Your task to perform on an android device: open app "AliExpress" (install if not already installed) Image 0: 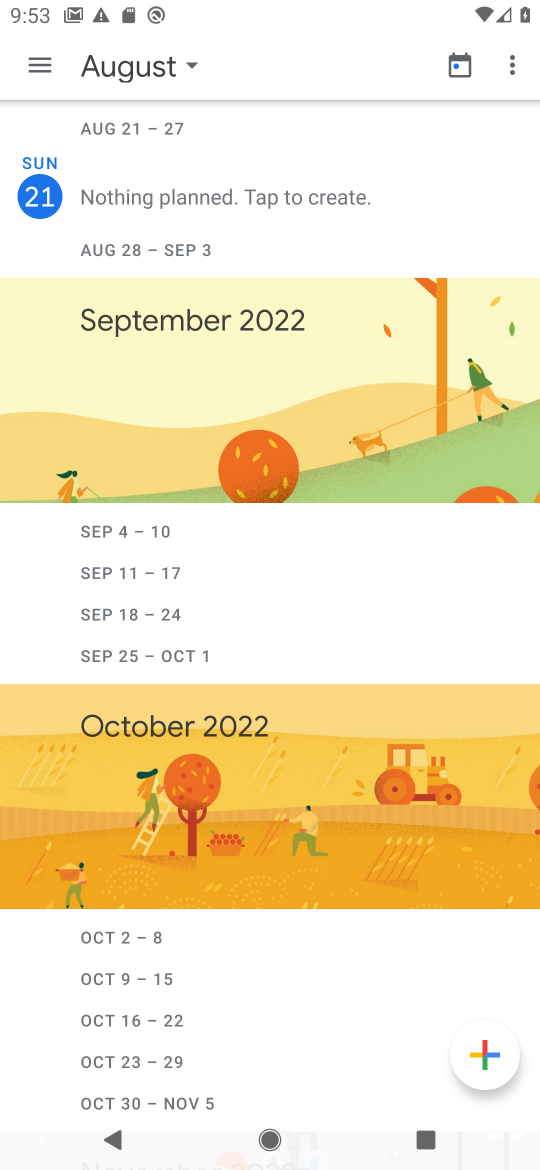
Step 0: press back button
Your task to perform on an android device: open app "AliExpress" (install if not already installed) Image 1: 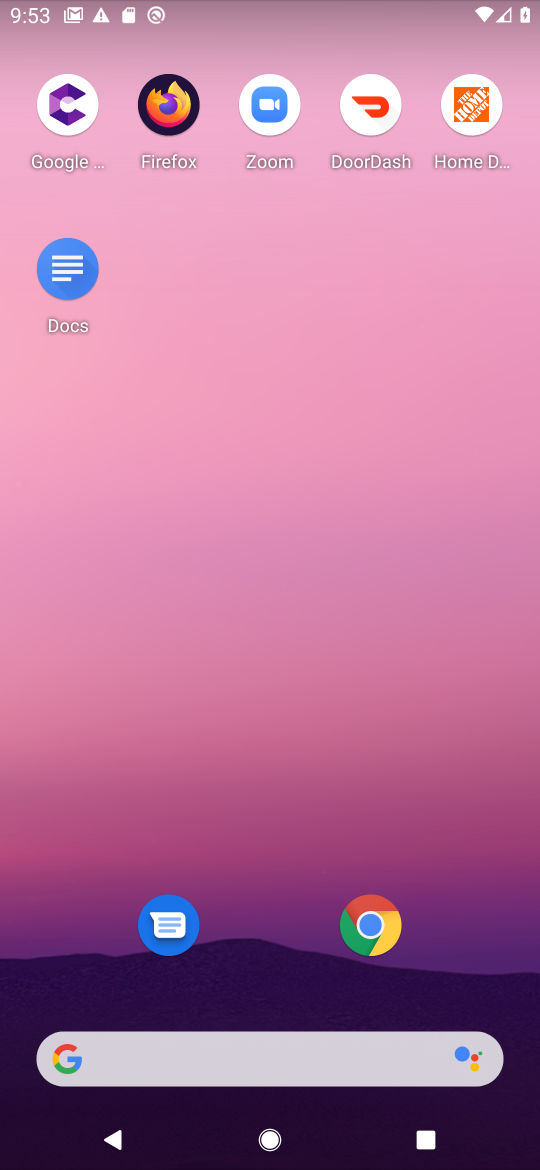
Step 1: drag from (308, 893) to (386, 209)
Your task to perform on an android device: open app "AliExpress" (install if not already installed) Image 2: 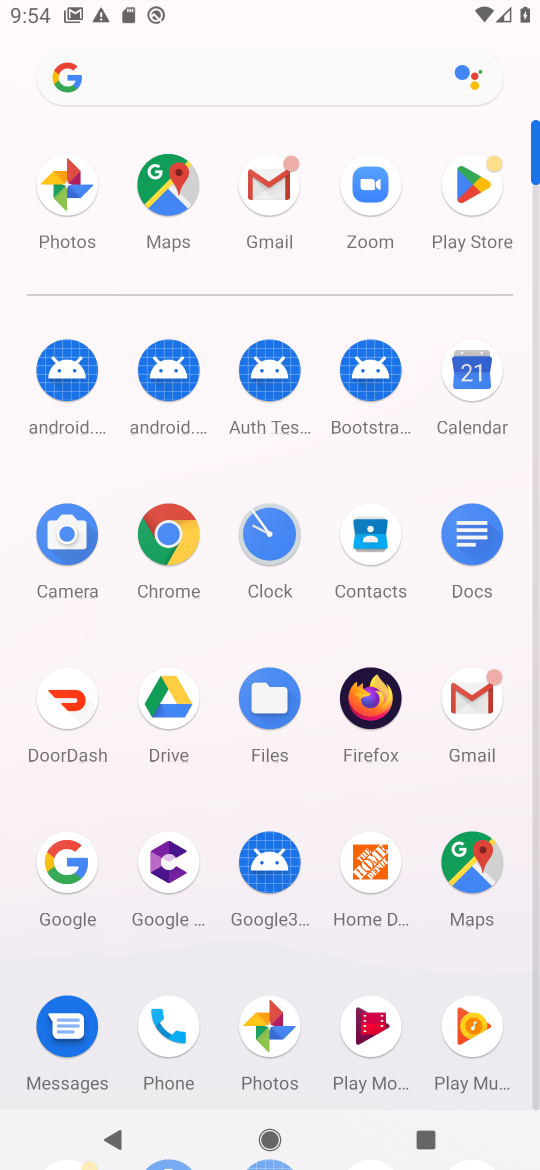
Step 2: click (465, 194)
Your task to perform on an android device: open app "AliExpress" (install if not already installed) Image 3: 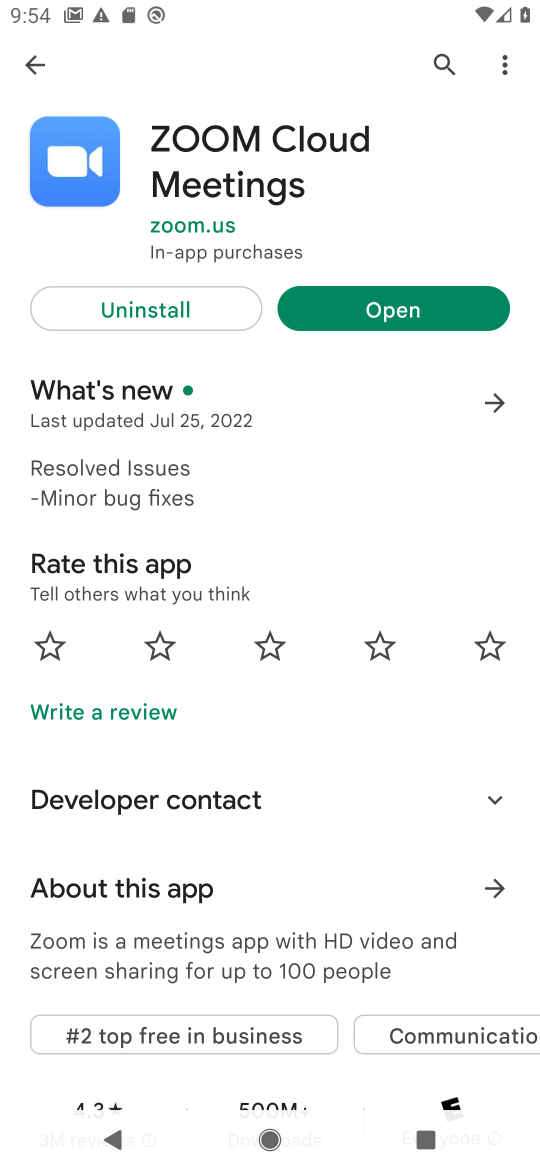
Step 3: click (446, 63)
Your task to perform on an android device: open app "AliExpress" (install if not already installed) Image 4: 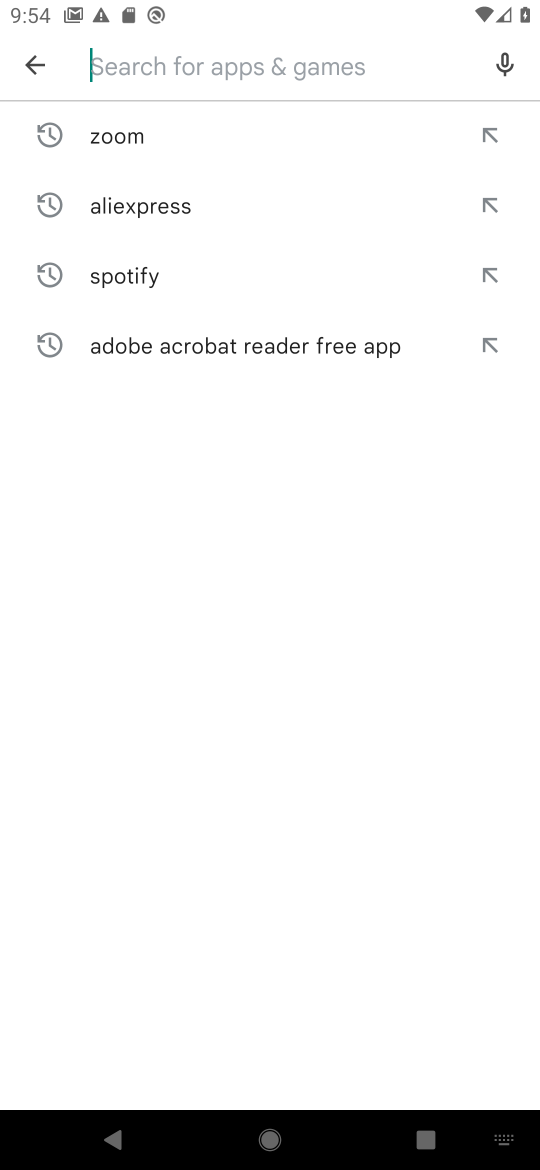
Step 4: click (250, 67)
Your task to perform on an android device: open app "AliExpress" (install if not already installed) Image 5: 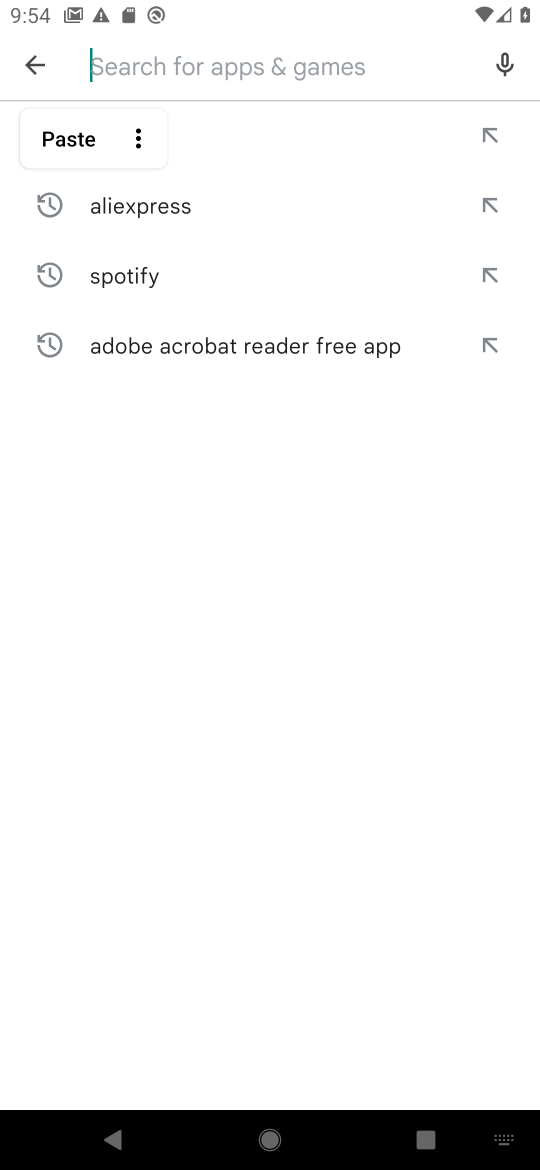
Step 5: type "aliexpress"
Your task to perform on an android device: open app "AliExpress" (install if not already installed) Image 6: 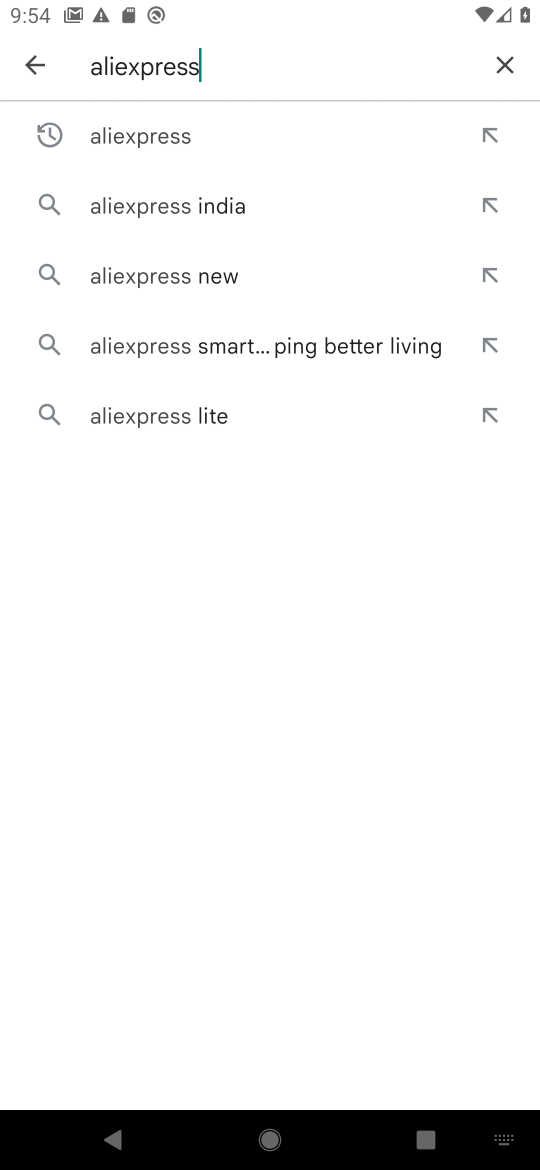
Step 6: click (214, 138)
Your task to perform on an android device: open app "AliExpress" (install if not already installed) Image 7: 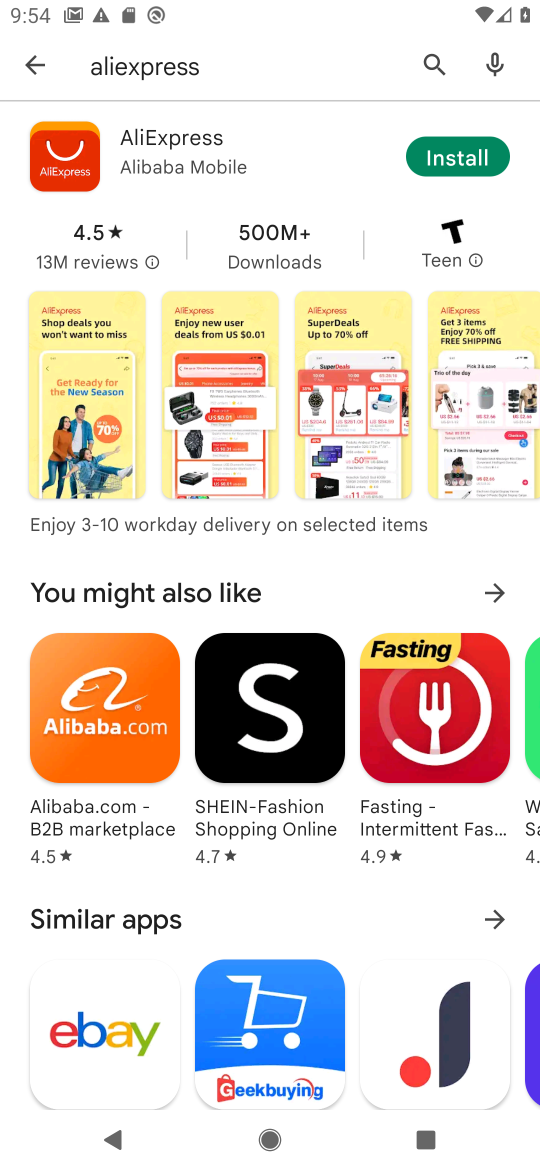
Step 7: click (467, 153)
Your task to perform on an android device: open app "AliExpress" (install if not already installed) Image 8: 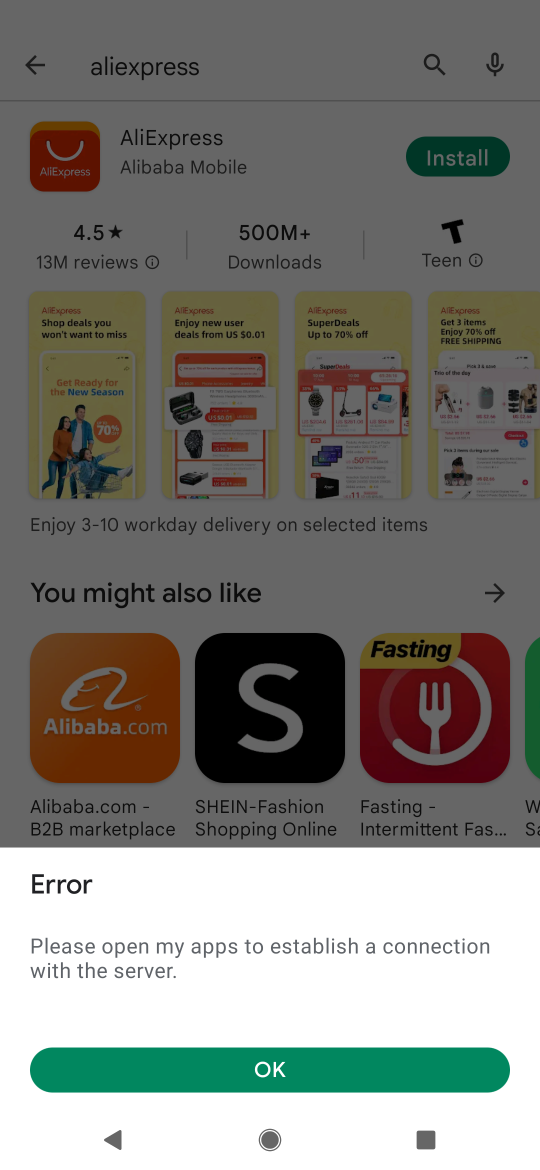
Step 8: task complete